Your task to perform on an android device: Go to notification settings Image 0: 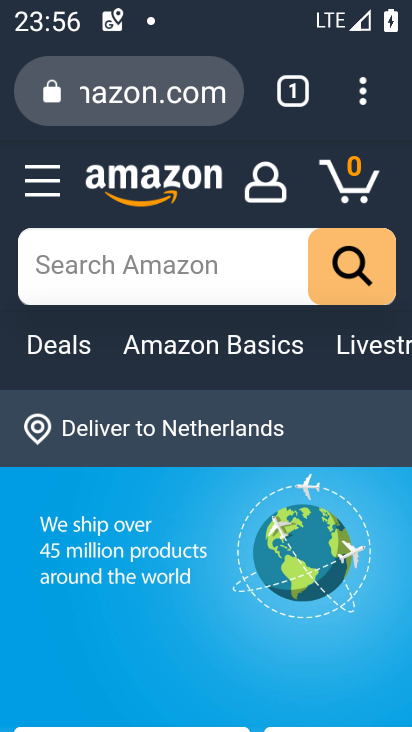
Step 0: press back button
Your task to perform on an android device: Go to notification settings Image 1: 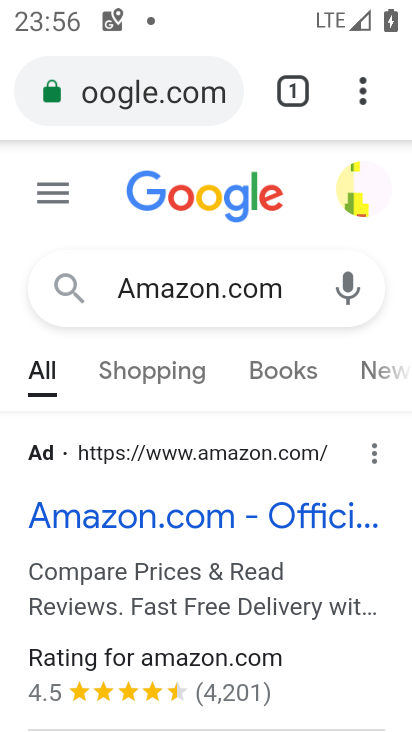
Step 1: press back button
Your task to perform on an android device: Go to notification settings Image 2: 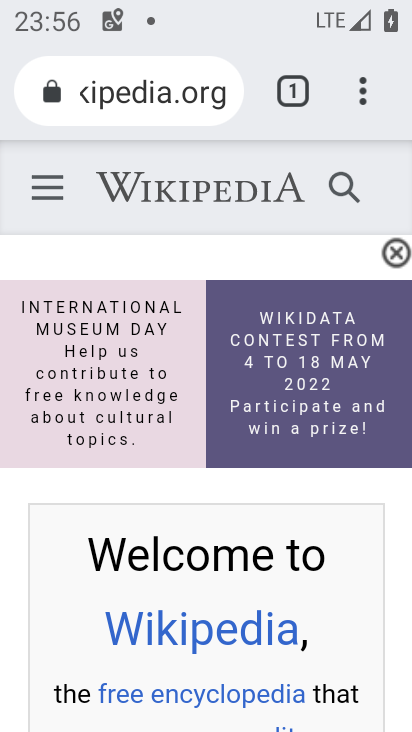
Step 2: press back button
Your task to perform on an android device: Go to notification settings Image 3: 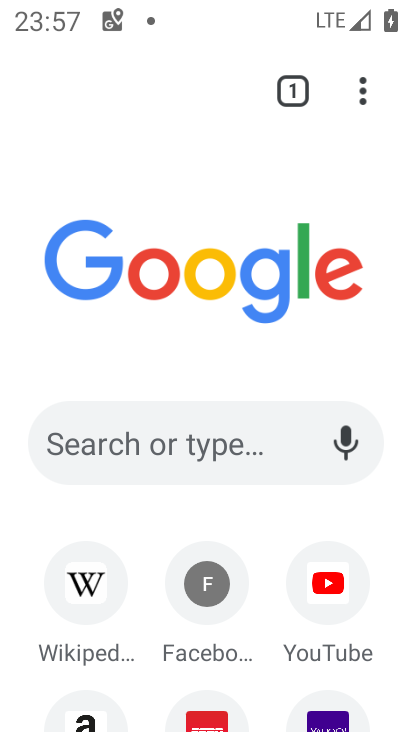
Step 3: press back button
Your task to perform on an android device: Go to notification settings Image 4: 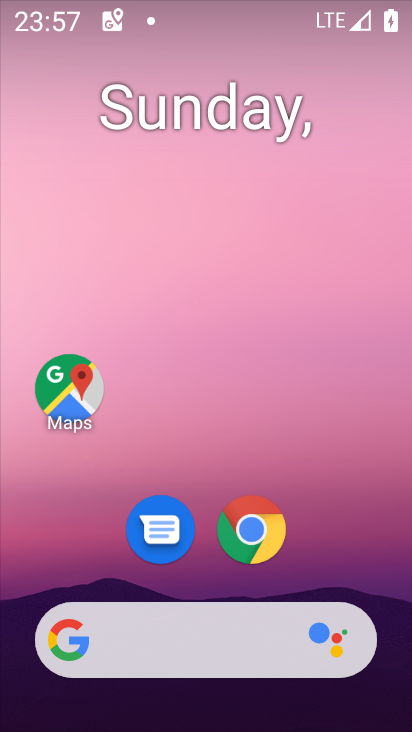
Step 4: drag from (315, 568) to (235, 173)
Your task to perform on an android device: Go to notification settings Image 5: 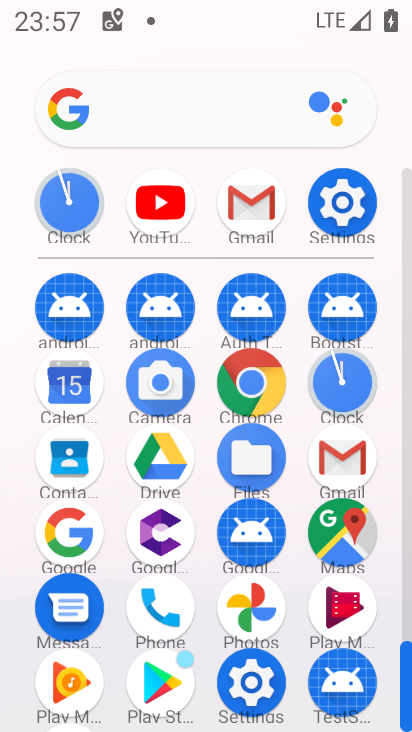
Step 5: click (253, 681)
Your task to perform on an android device: Go to notification settings Image 6: 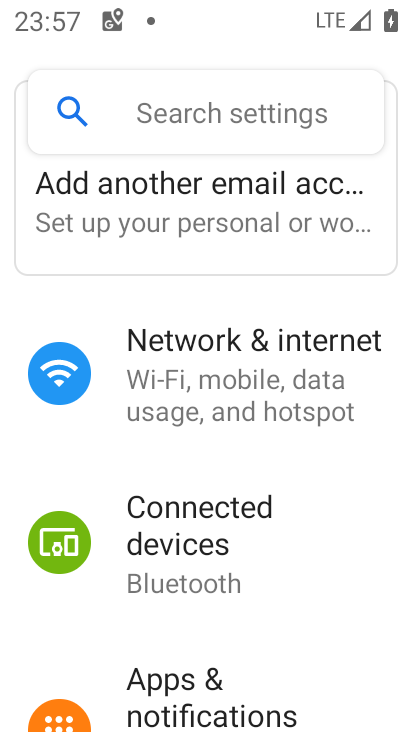
Step 6: drag from (208, 481) to (276, 320)
Your task to perform on an android device: Go to notification settings Image 7: 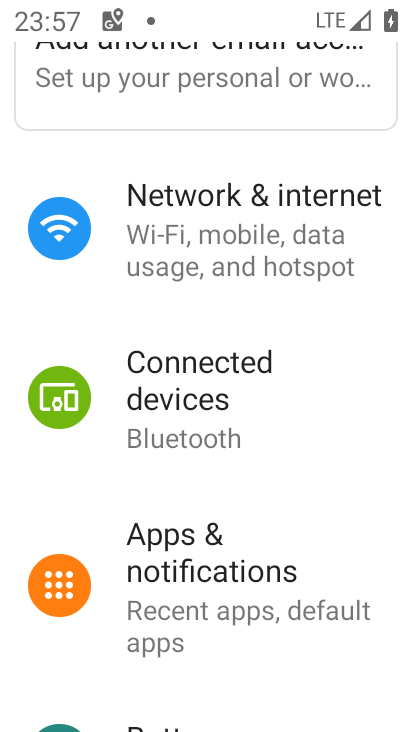
Step 7: click (224, 569)
Your task to perform on an android device: Go to notification settings Image 8: 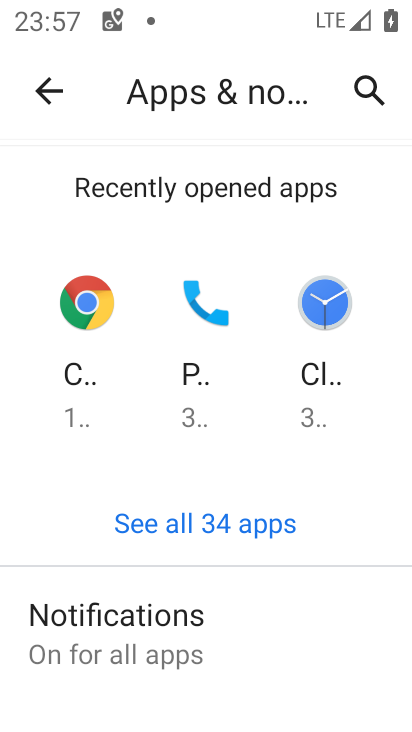
Step 8: click (121, 603)
Your task to perform on an android device: Go to notification settings Image 9: 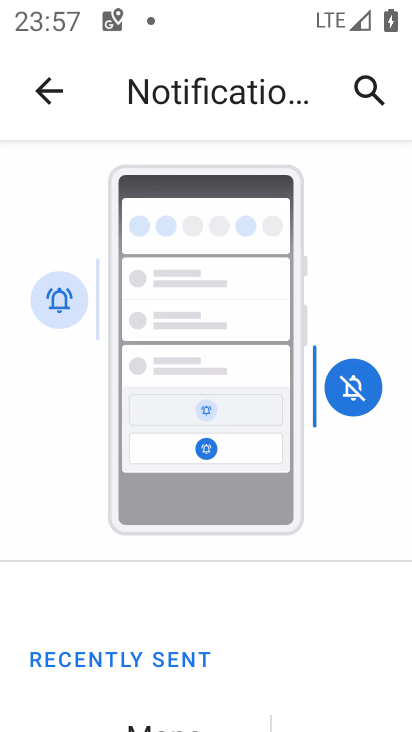
Step 9: task complete